Your task to perform on an android device: check battery use Image 0: 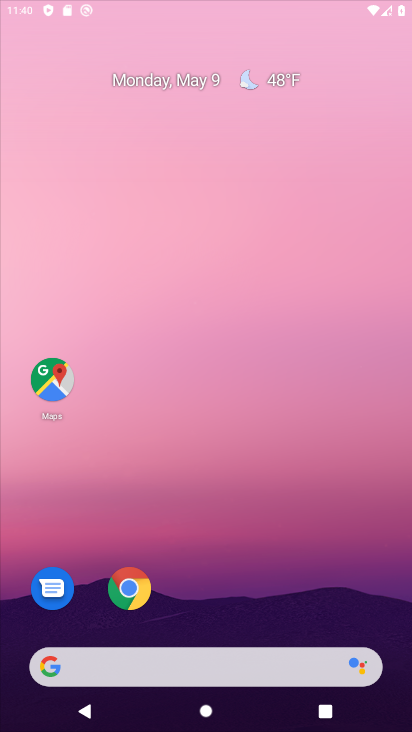
Step 0: drag from (264, 571) to (329, 336)
Your task to perform on an android device: check battery use Image 1: 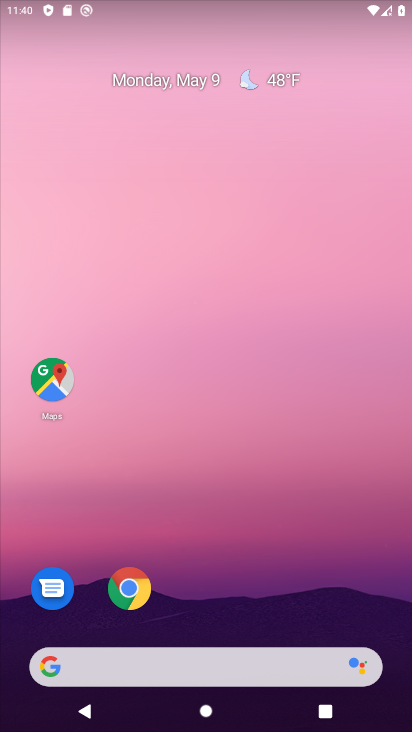
Step 1: drag from (250, 558) to (317, 282)
Your task to perform on an android device: check battery use Image 2: 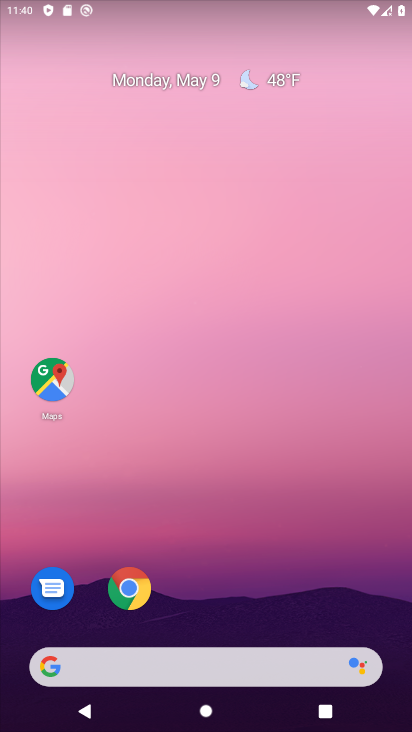
Step 2: drag from (181, 569) to (296, 178)
Your task to perform on an android device: check battery use Image 3: 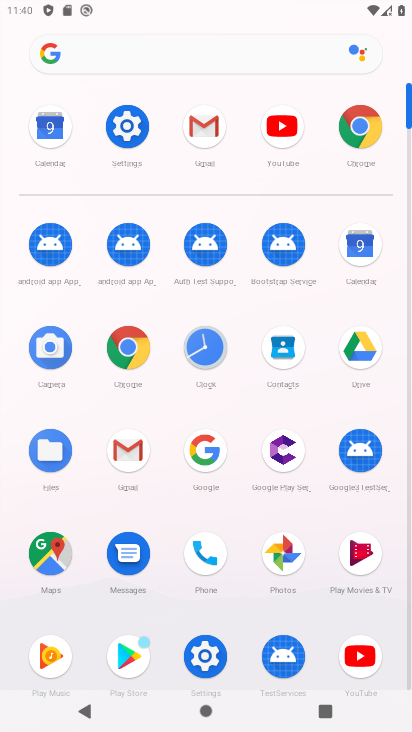
Step 3: click (193, 647)
Your task to perform on an android device: check battery use Image 4: 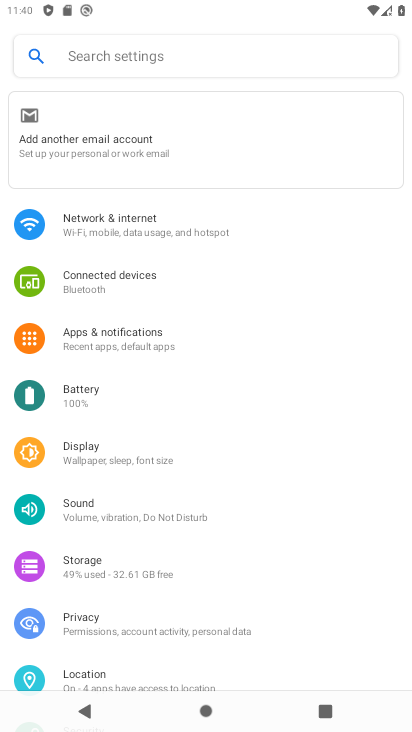
Step 4: click (143, 401)
Your task to perform on an android device: check battery use Image 5: 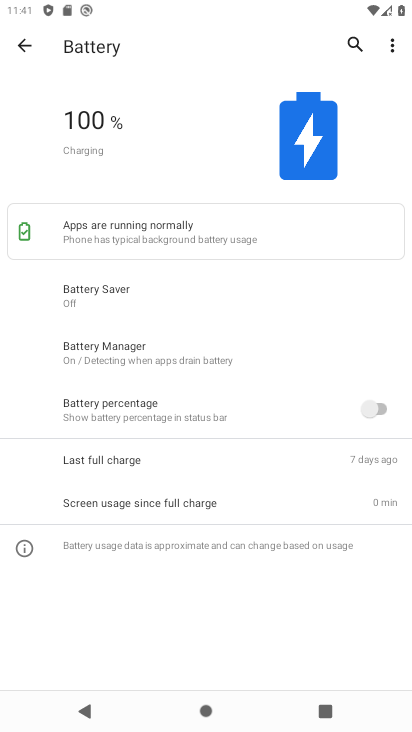
Step 5: task complete